Your task to perform on an android device: Open wifi settings Image 0: 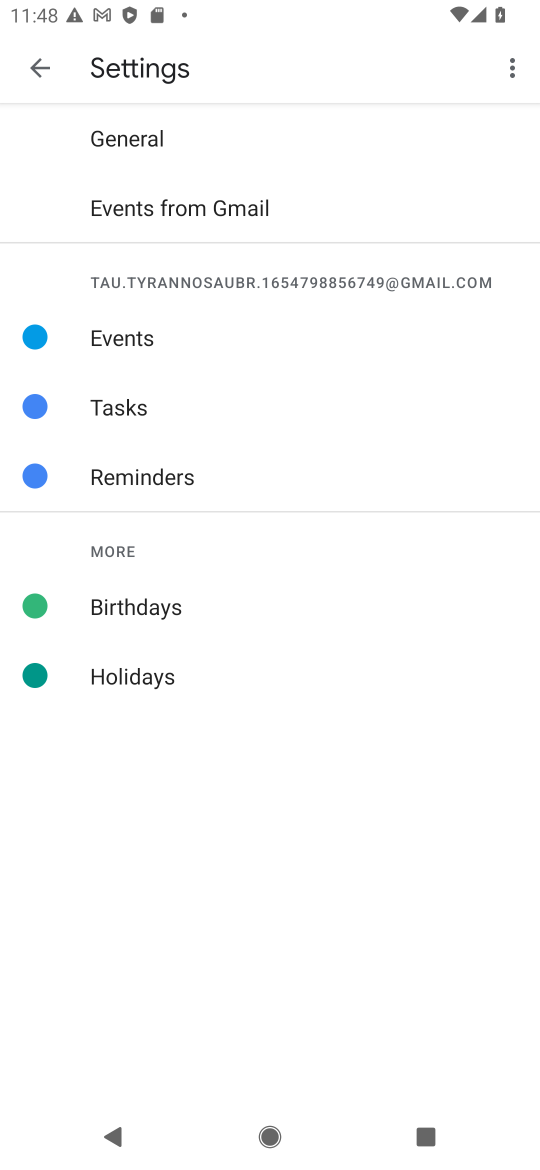
Step 0: press home button
Your task to perform on an android device: Open wifi settings Image 1: 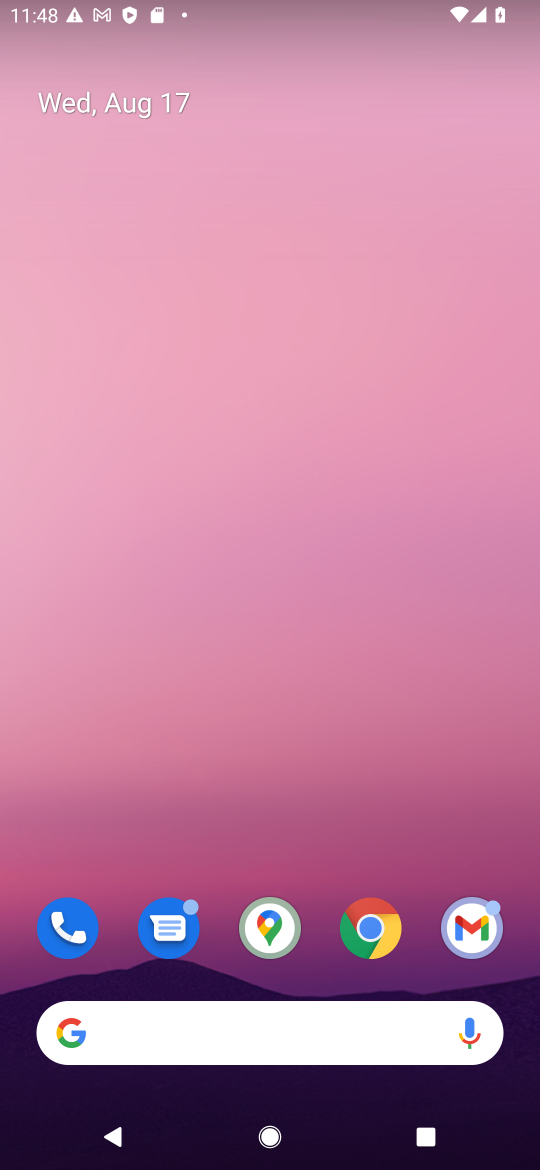
Step 1: drag from (306, 830) to (254, 337)
Your task to perform on an android device: Open wifi settings Image 2: 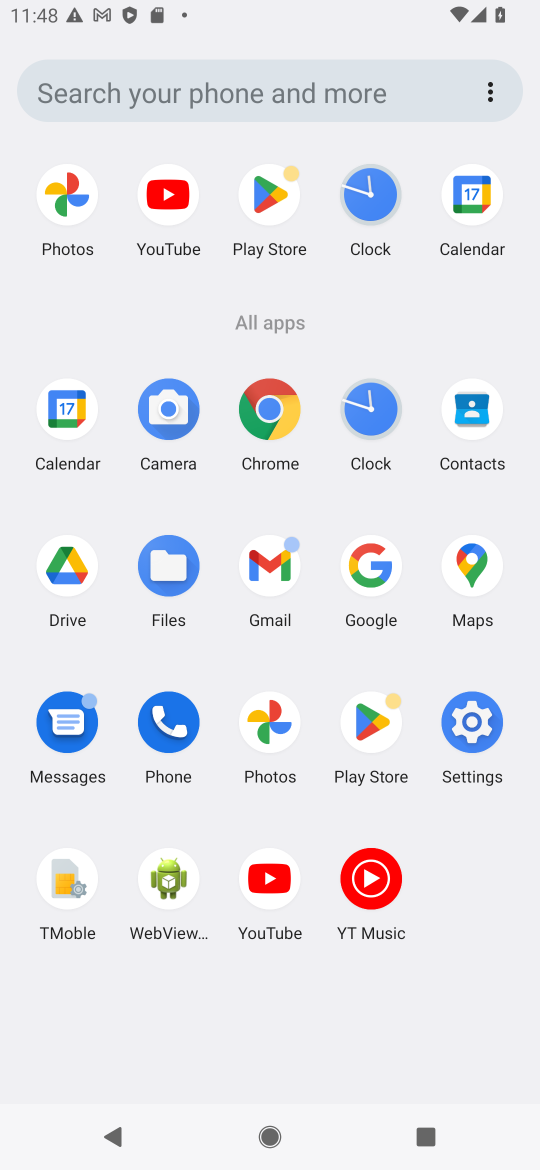
Step 2: click (448, 746)
Your task to perform on an android device: Open wifi settings Image 3: 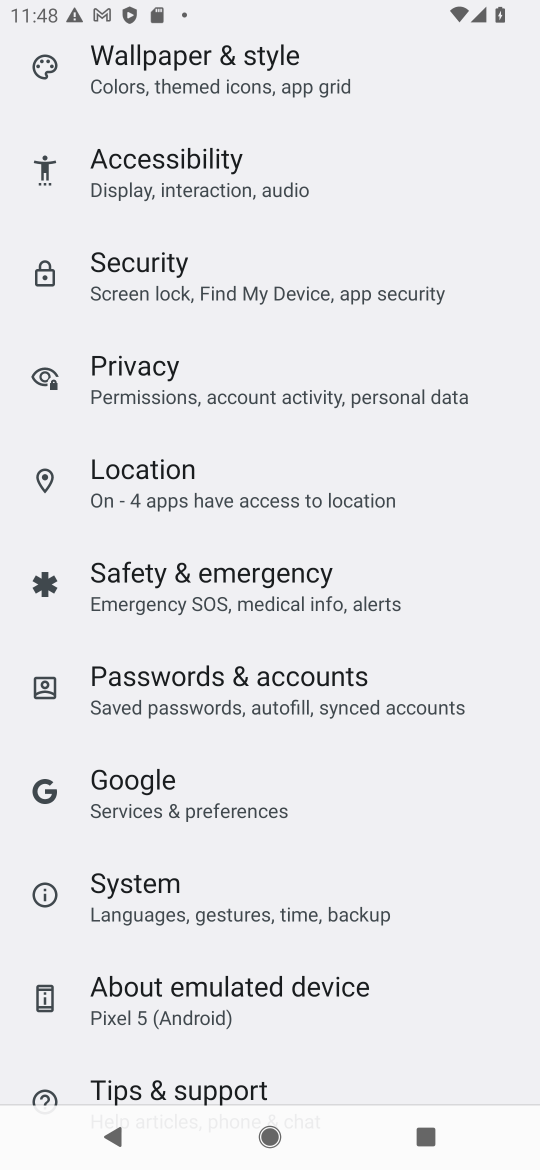
Step 3: drag from (220, 373) to (261, 858)
Your task to perform on an android device: Open wifi settings Image 4: 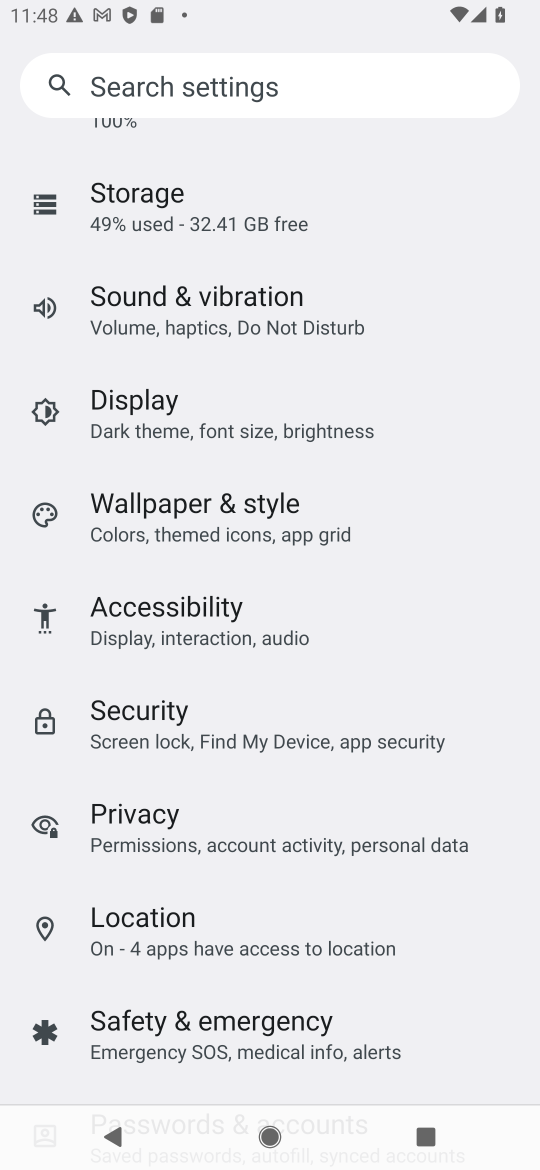
Step 4: drag from (205, 300) to (211, 787)
Your task to perform on an android device: Open wifi settings Image 5: 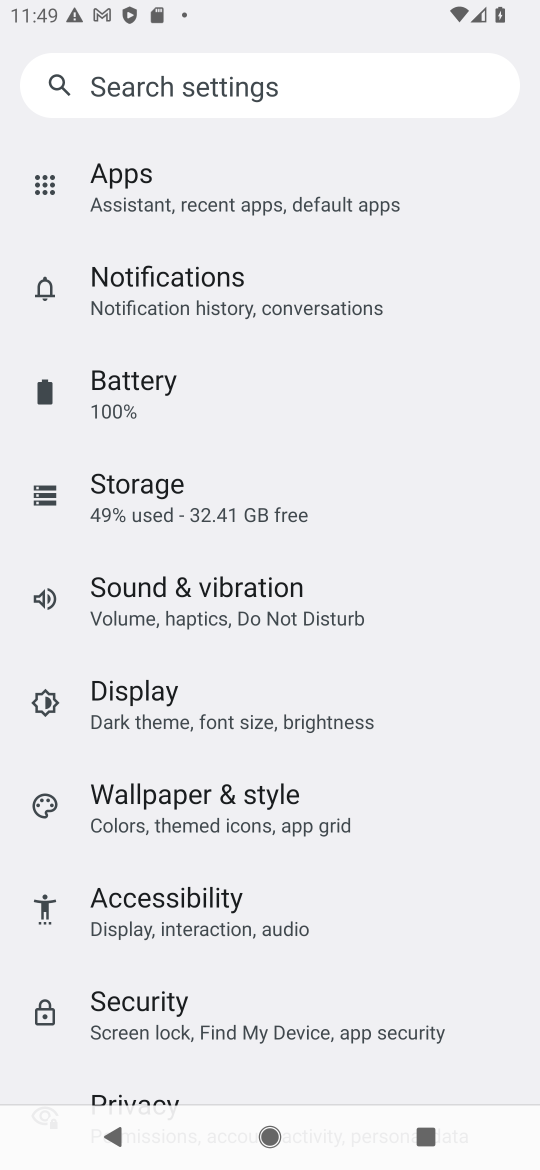
Step 5: drag from (220, 379) to (227, 932)
Your task to perform on an android device: Open wifi settings Image 6: 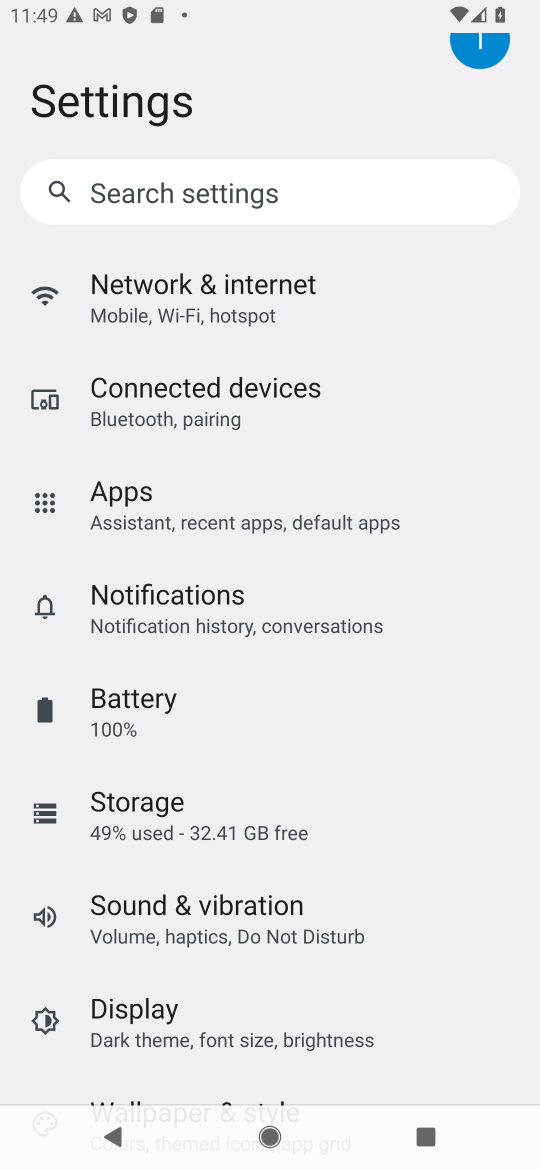
Step 6: click (220, 326)
Your task to perform on an android device: Open wifi settings Image 7: 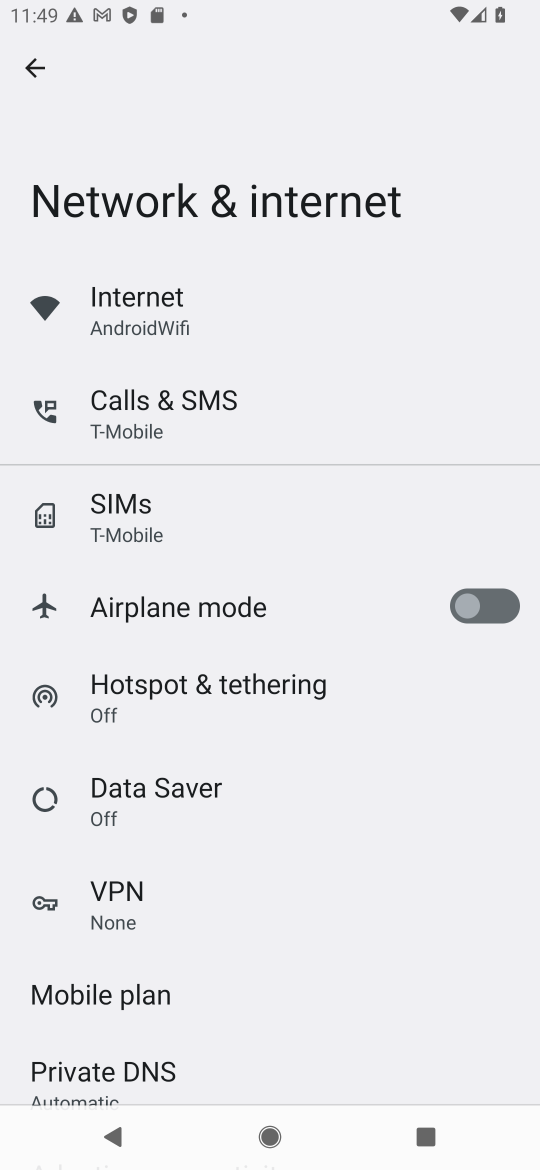
Step 7: task complete